Your task to perform on an android device: Find coffee shops on Maps Image 0: 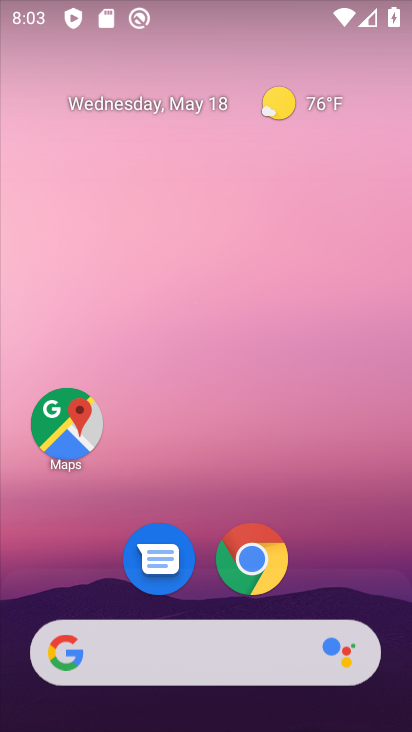
Step 0: click (58, 395)
Your task to perform on an android device: Find coffee shops on Maps Image 1: 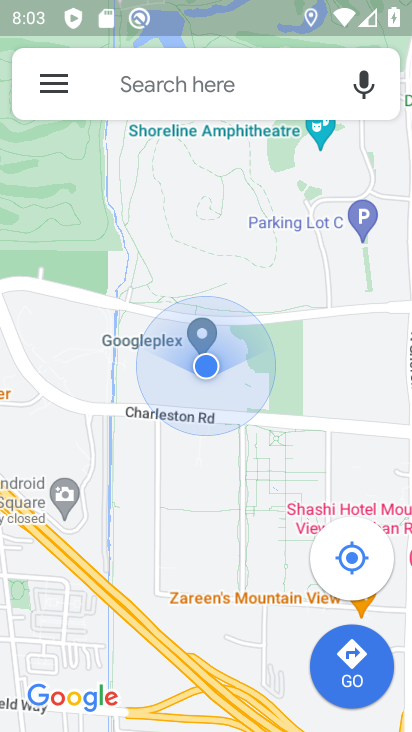
Step 1: click (247, 69)
Your task to perform on an android device: Find coffee shops on Maps Image 2: 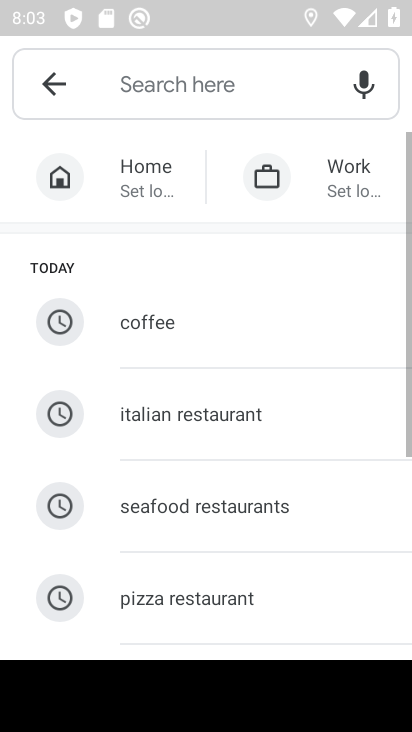
Step 2: click (140, 330)
Your task to perform on an android device: Find coffee shops on Maps Image 3: 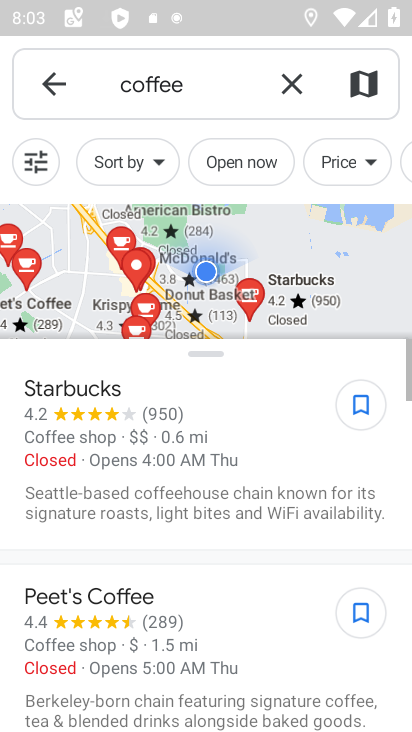
Step 3: task complete